Your task to perform on an android device: Is it going to rain today? Image 0: 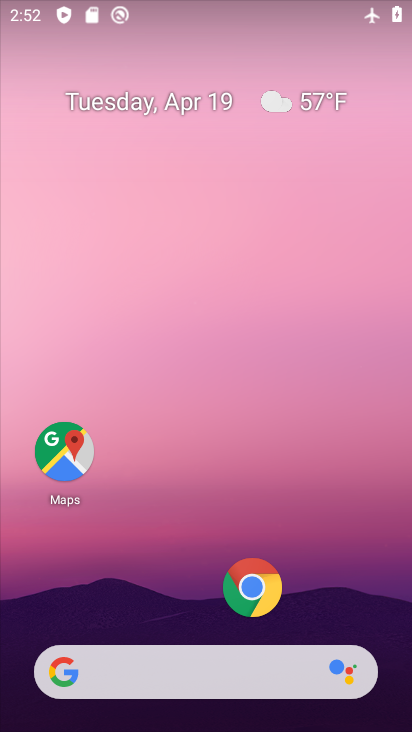
Step 0: click (307, 108)
Your task to perform on an android device: Is it going to rain today? Image 1: 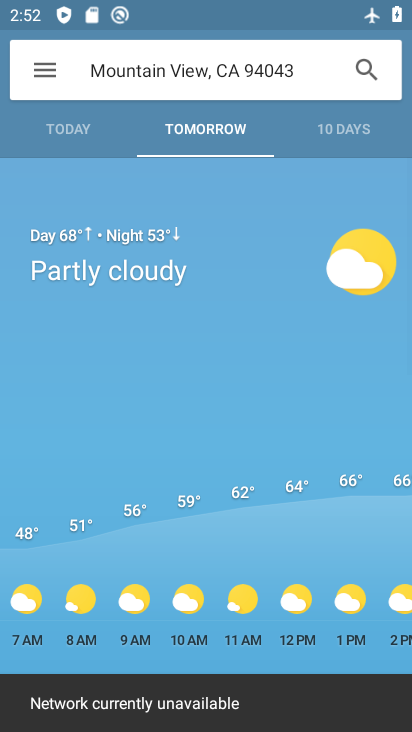
Step 1: click (65, 132)
Your task to perform on an android device: Is it going to rain today? Image 2: 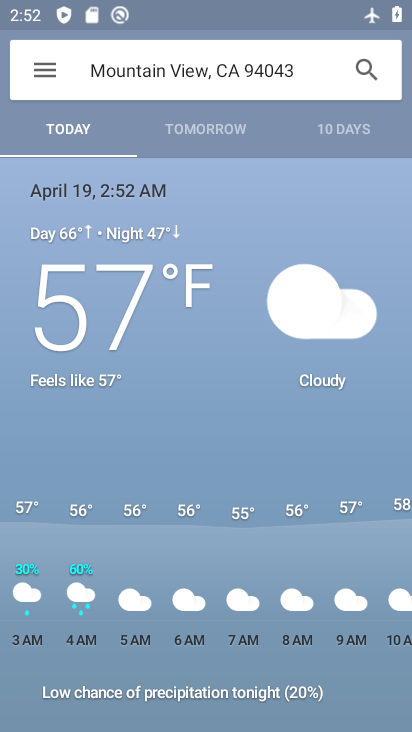
Step 2: task complete